Your task to perform on an android device: Open internet settings Image 0: 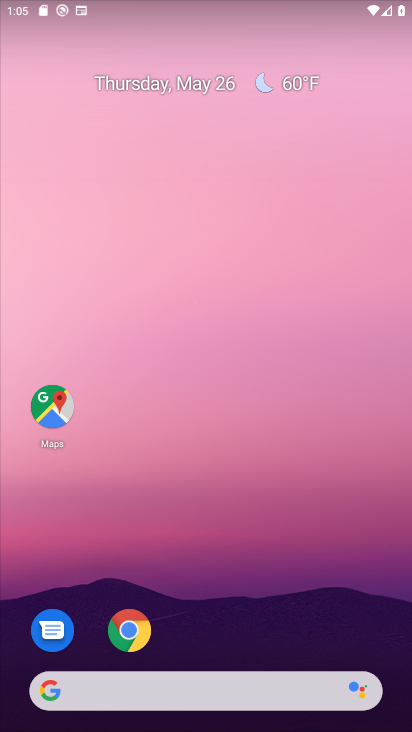
Step 0: drag from (308, 535) to (300, 99)
Your task to perform on an android device: Open internet settings Image 1: 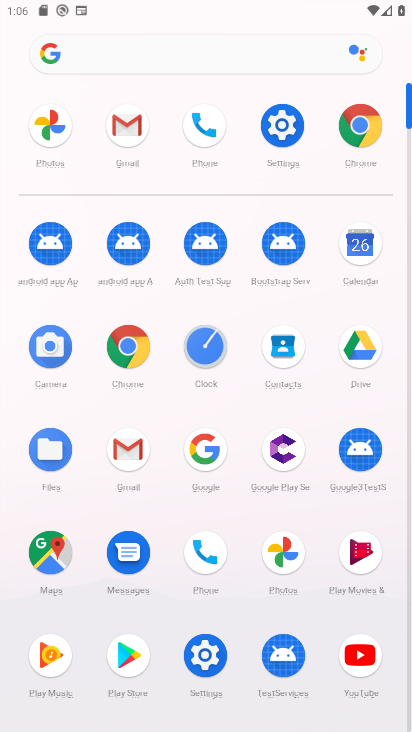
Step 1: click (291, 121)
Your task to perform on an android device: Open internet settings Image 2: 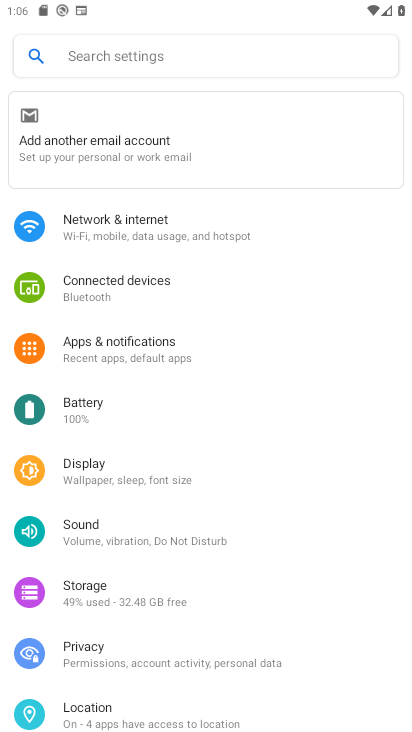
Step 2: click (131, 240)
Your task to perform on an android device: Open internet settings Image 3: 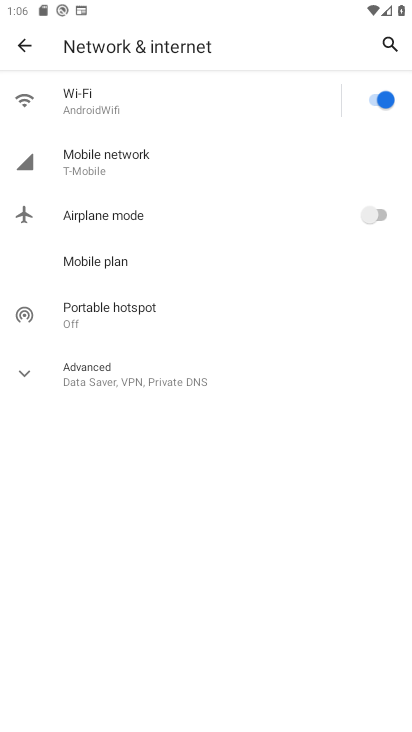
Step 3: task complete